Your task to perform on an android device: snooze an email in the gmail app Image 0: 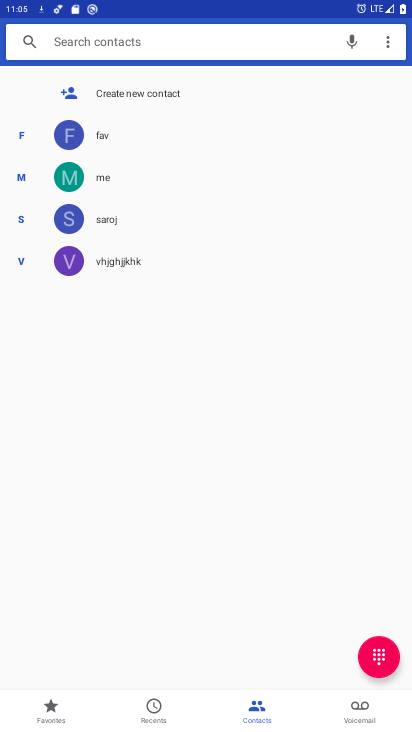
Step 0: press home button
Your task to perform on an android device: snooze an email in the gmail app Image 1: 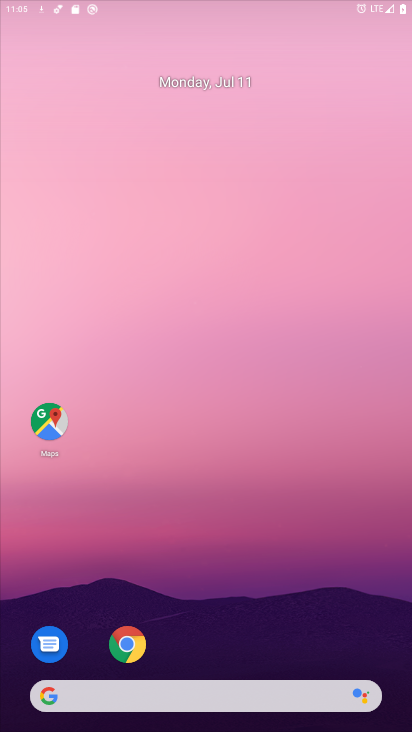
Step 1: drag from (166, 642) to (177, 152)
Your task to perform on an android device: snooze an email in the gmail app Image 2: 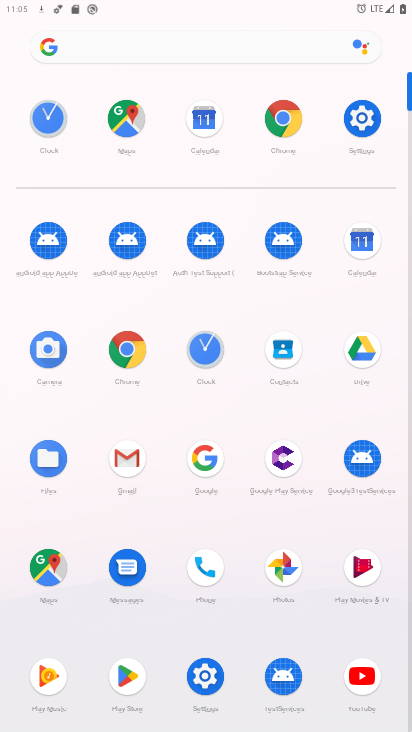
Step 2: click (137, 451)
Your task to perform on an android device: snooze an email in the gmail app Image 3: 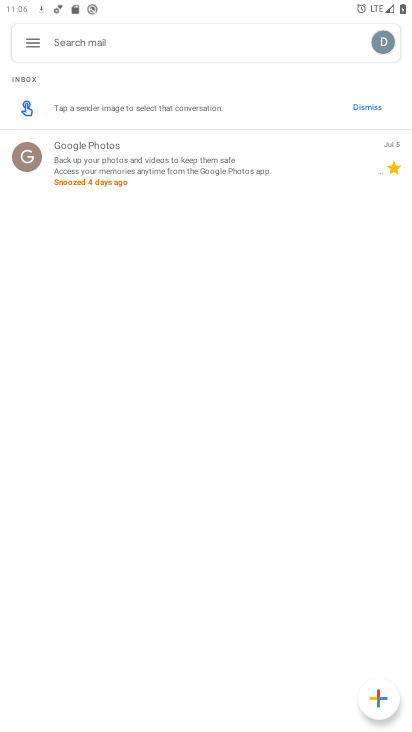
Step 3: click (38, 44)
Your task to perform on an android device: snooze an email in the gmail app Image 4: 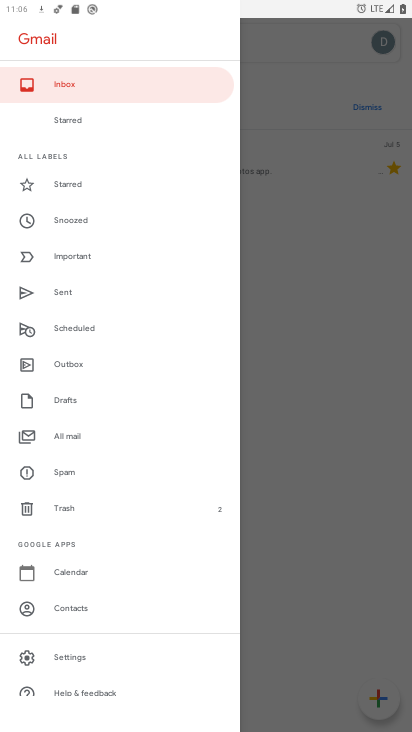
Step 4: click (73, 210)
Your task to perform on an android device: snooze an email in the gmail app Image 5: 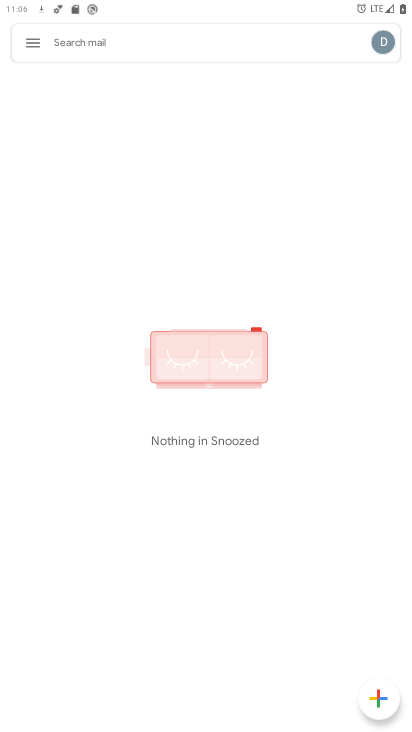
Step 5: task complete